Your task to perform on an android device: Go to settings Image 0: 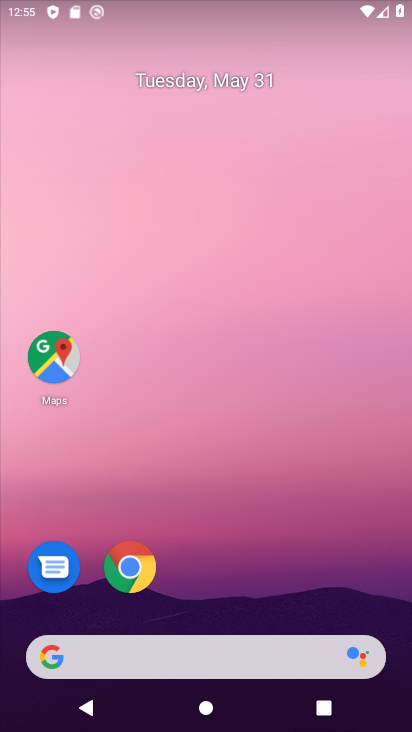
Step 0: drag from (281, 569) to (302, 111)
Your task to perform on an android device: Go to settings Image 1: 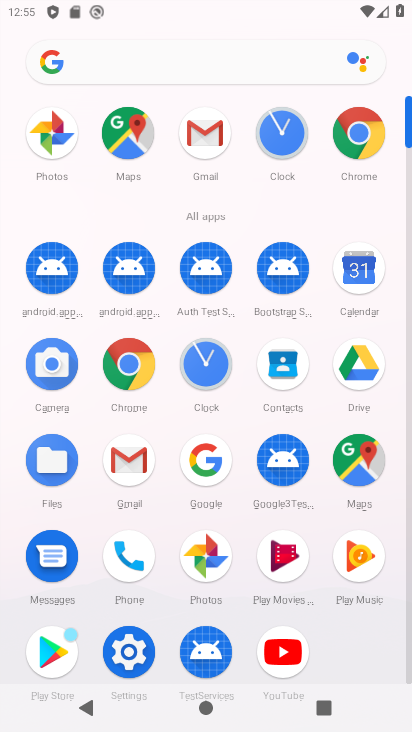
Step 1: click (117, 649)
Your task to perform on an android device: Go to settings Image 2: 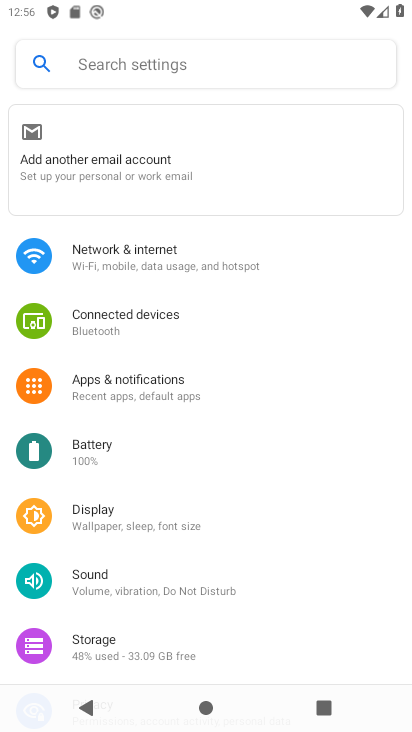
Step 2: task complete